Your task to perform on an android device: Open the phone app and click the voicemail tab. Image 0: 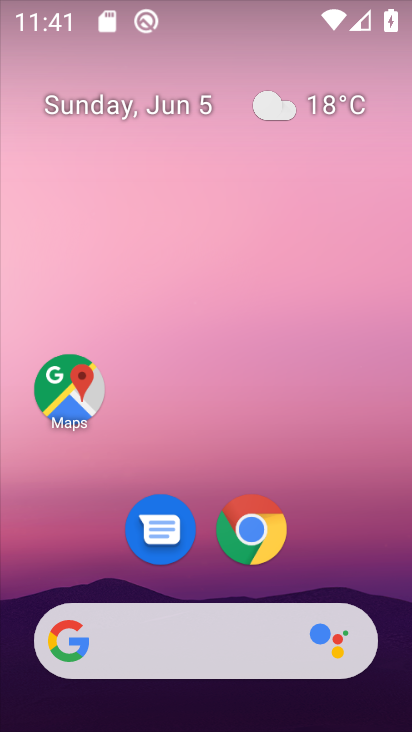
Step 0: drag from (341, 576) to (268, 39)
Your task to perform on an android device: Open the phone app and click the voicemail tab. Image 1: 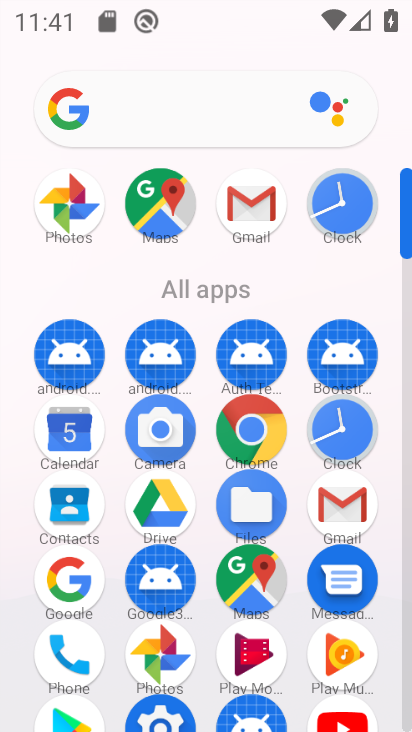
Step 1: click (76, 634)
Your task to perform on an android device: Open the phone app and click the voicemail tab. Image 2: 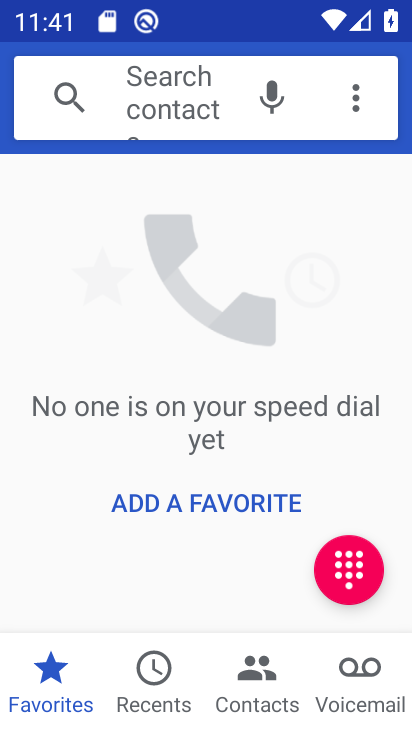
Step 2: click (370, 677)
Your task to perform on an android device: Open the phone app and click the voicemail tab. Image 3: 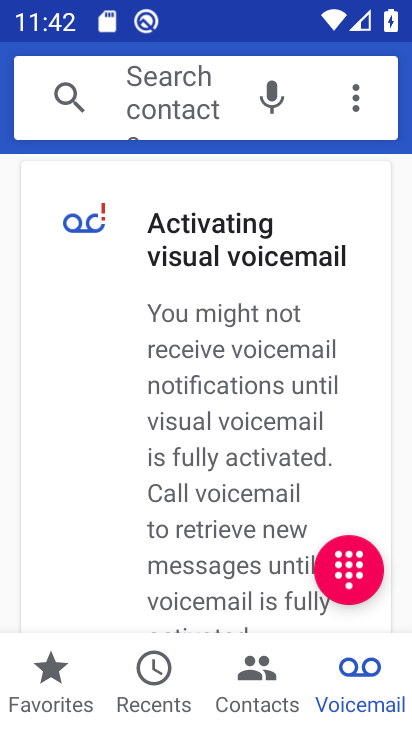
Step 3: task complete